Your task to perform on an android device: Open network settings Image 0: 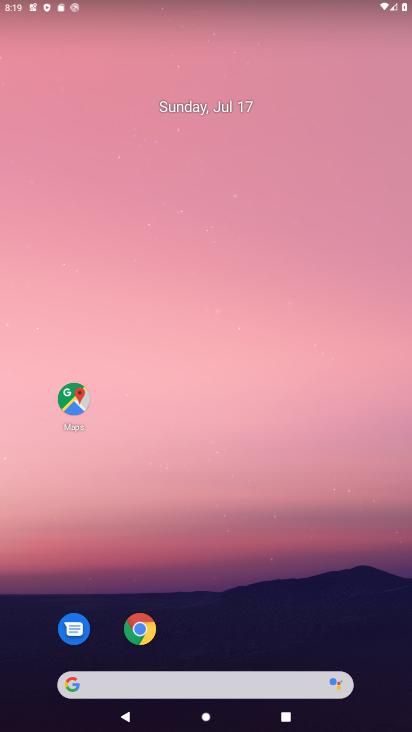
Step 0: drag from (225, 693) to (239, 139)
Your task to perform on an android device: Open network settings Image 1: 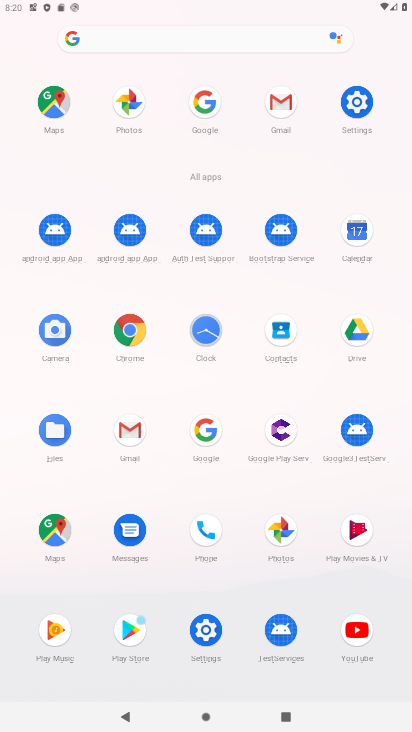
Step 1: click (366, 104)
Your task to perform on an android device: Open network settings Image 2: 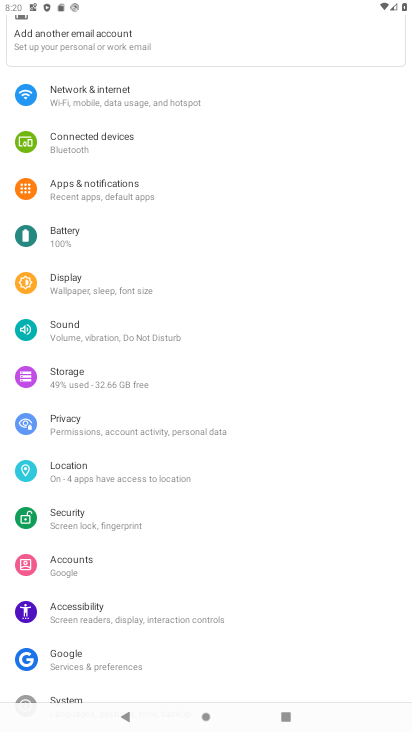
Step 2: click (101, 107)
Your task to perform on an android device: Open network settings Image 3: 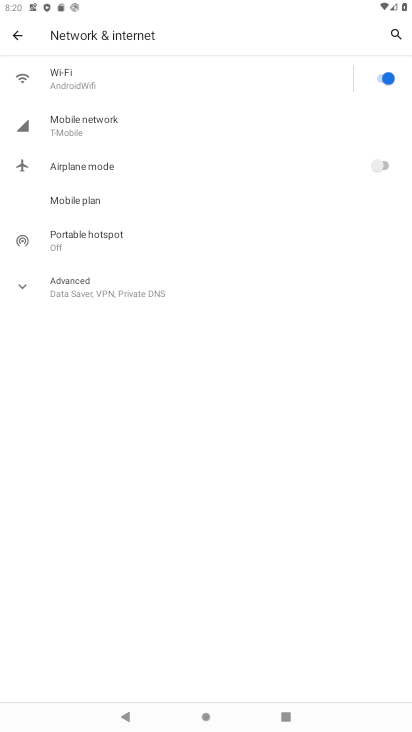
Step 3: task complete